Your task to perform on an android device: find snoozed emails in the gmail app Image 0: 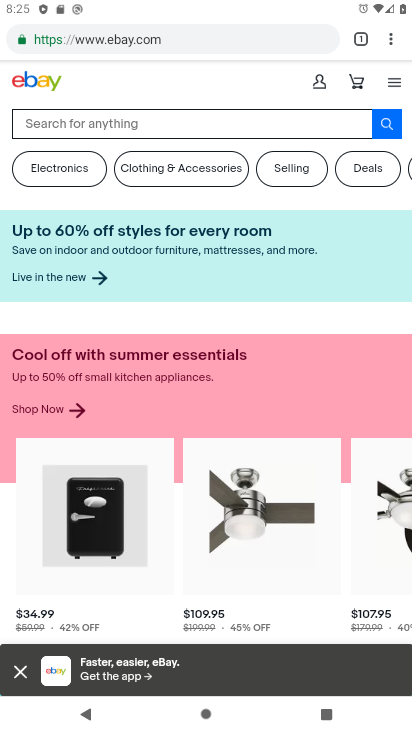
Step 0: press home button
Your task to perform on an android device: find snoozed emails in the gmail app Image 1: 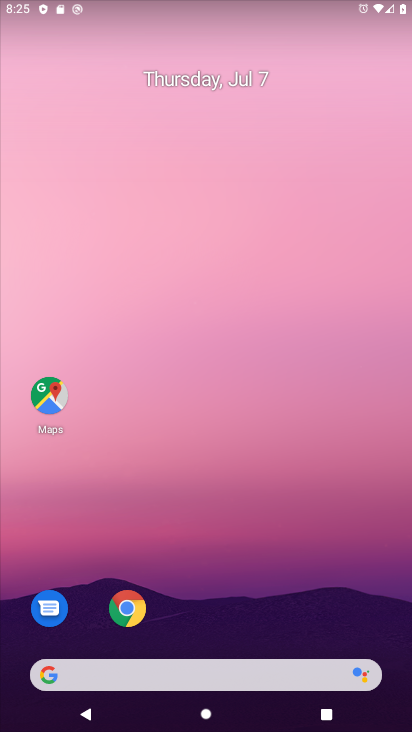
Step 1: drag from (175, 641) to (175, 297)
Your task to perform on an android device: find snoozed emails in the gmail app Image 2: 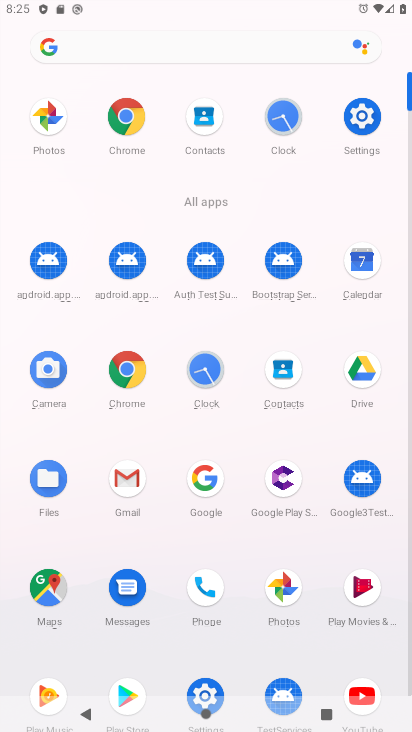
Step 2: click (127, 483)
Your task to perform on an android device: find snoozed emails in the gmail app Image 3: 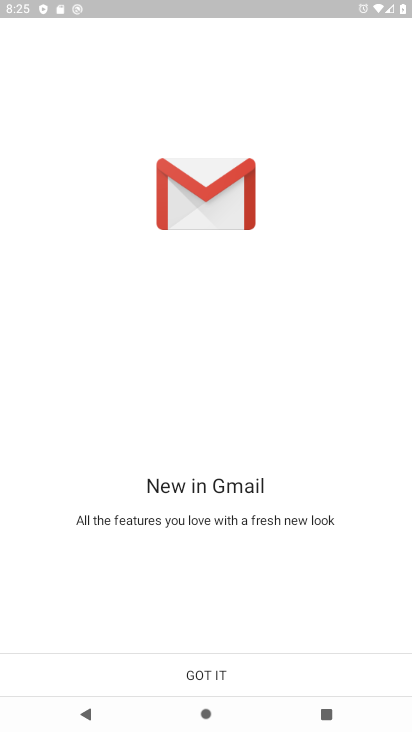
Step 3: click (203, 676)
Your task to perform on an android device: find snoozed emails in the gmail app Image 4: 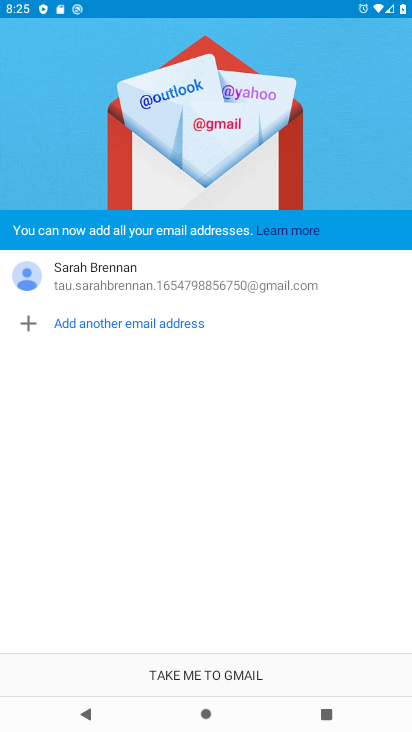
Step 4: click (202, 673)
Your task to perform on an android device: find snoozed emails in the gmail app Image 5: 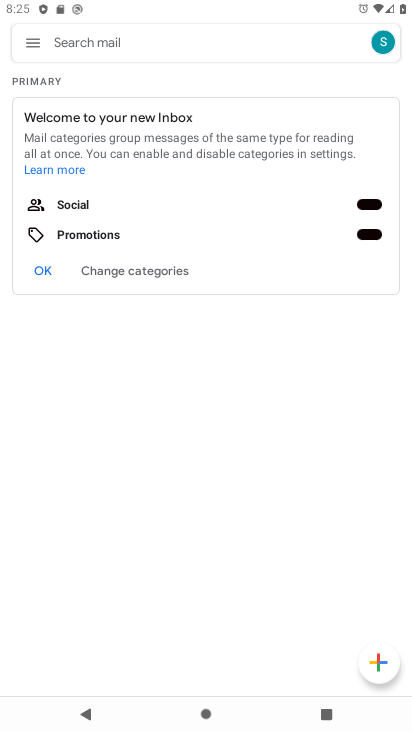
Step 5: click (33, 41)
Your task to perform on an android device: find snoozed emails in the gmail app Image 6: 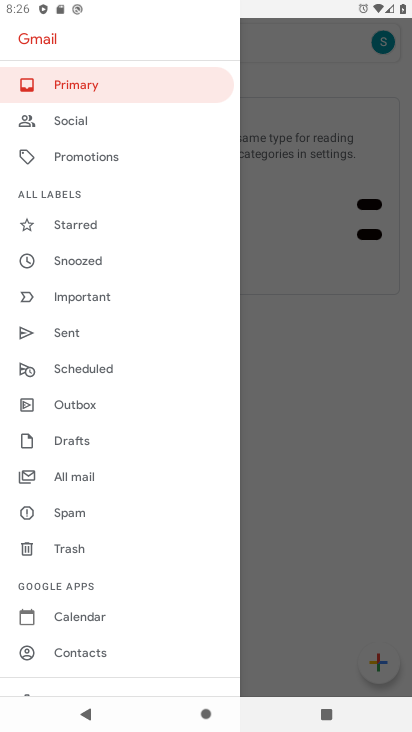
Step 6: click (78, 477)
Your task to perform on an android device: find snoozed emails in the gmail app Image 7: 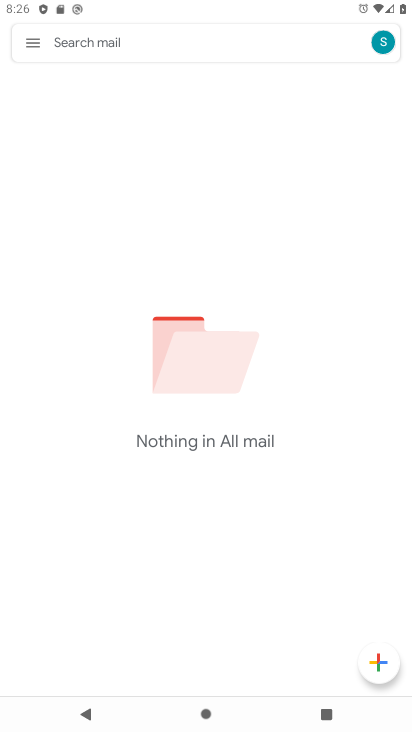
Step 7: task complete